Your task to perform on an android device: Open calendar and show me the first week of next month Image 0: 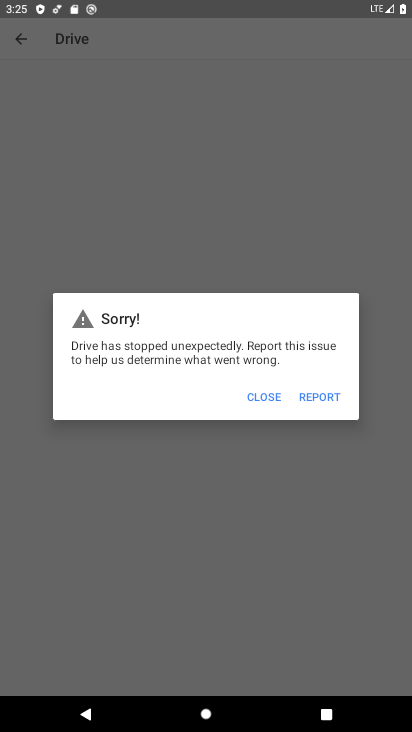
Step 0: press home button
Your task to perform on an android device: Open calendar and show me the first week of next month Image 1: 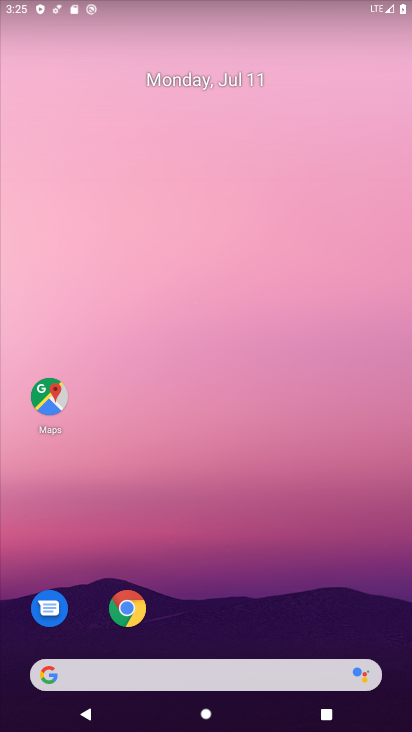
Step 1: drag from (226, 645) to (265, 144)
Your task to perform on an android device: Open calendar and show me the first week of next month Image 2: 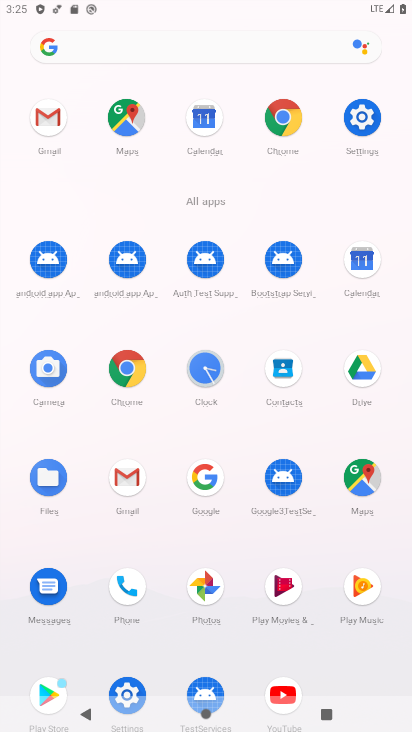
Step 2: click (362, 259)
Your task to perform on an android device: Open calendar and show me the first week of next month Image 3: 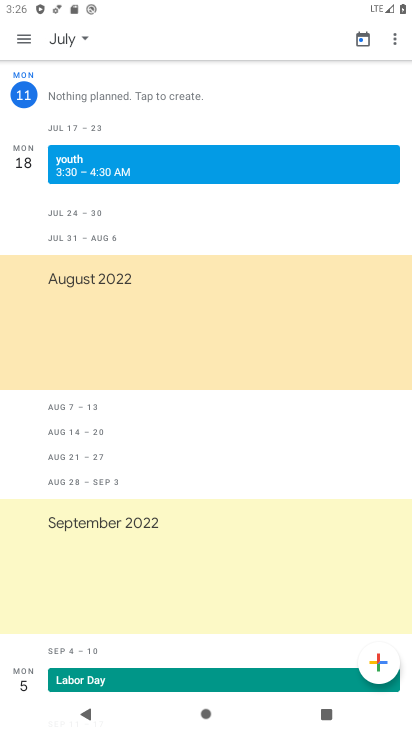
Step 3: click (80, 36)
Your task to perform on an android device: Open calendar and show me the first week of next month Image 4: 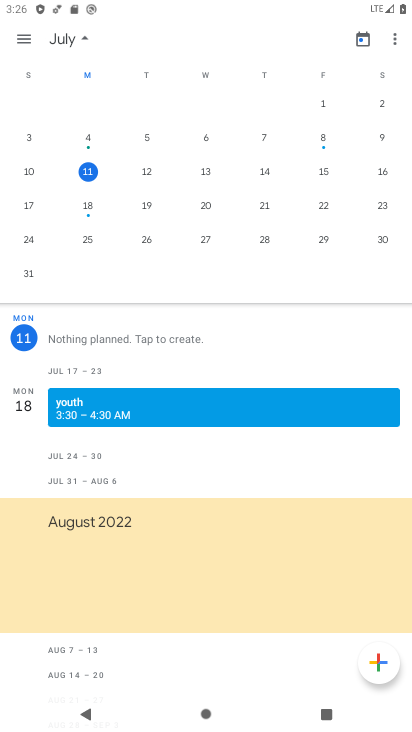
Step 4: drag from (307, 191) to (15, 187)
Your task to perform on an android device: Open calendar and show me the first week of next month Image 5: 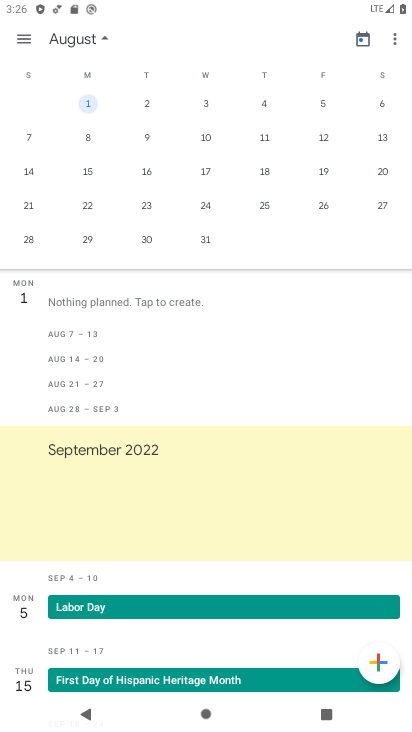
Step 5: click (84, 105)
Your task to perform on an android device: Open calendar and show me the first week of next month Image 6: 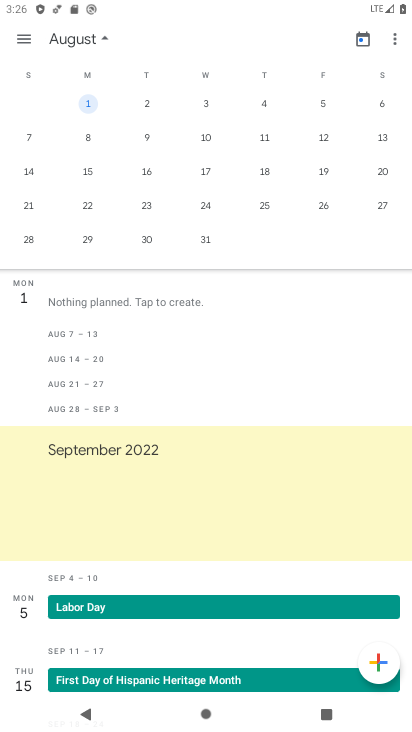
Step 6: task complete